Your task to perform on an android device: move a message to another label in the gmail app Image 0: 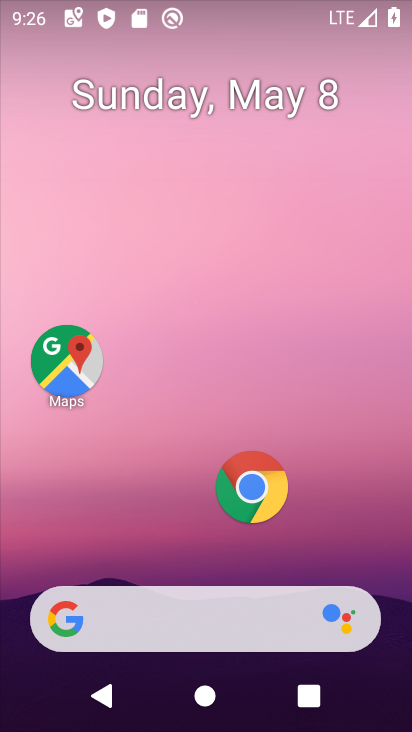
Step 0: drag from (313, 527) to (303, 45)
Your task to perform on an android device: move a message to another label in the gmail app Image 1: 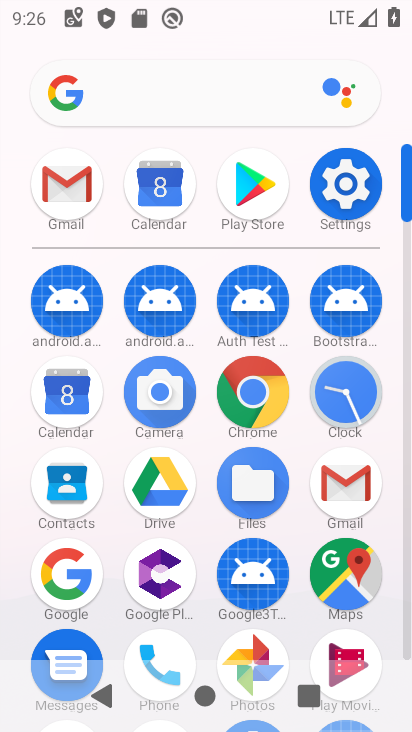
Step 1: click (59, 184)
Your task to perform on an android device: move a message to another label in the gmail app Image 2: 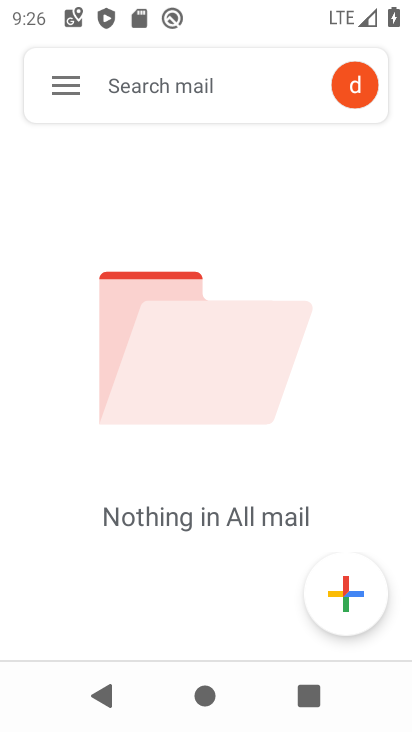
Step 2: click (56, 82)
Your task to perform on an android device: move a message to another label in the gmail app Image 3: 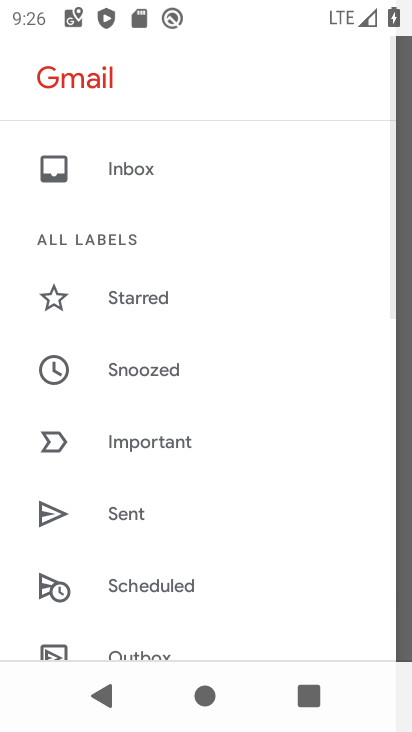
Step 3: drag from (180, 516) to (287, 123)
Your task to perform on an android device: move a message to another label in the gmail app Image 4: 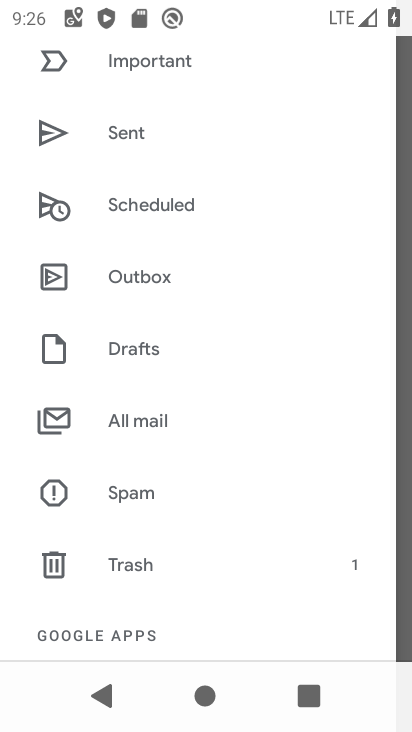
Step 4: click (155, 424)
Your task to perform on an android device: move a message to another label in the gmail app Image 5: 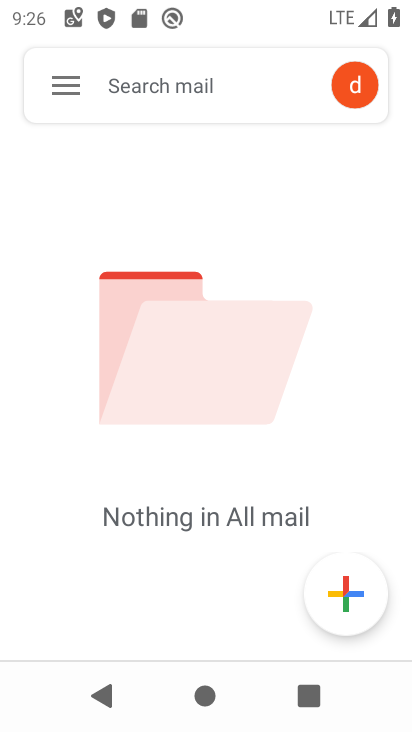
Step 5: task complete